Your task to perform on an android device: Open Maps and search for coffee Image 0: 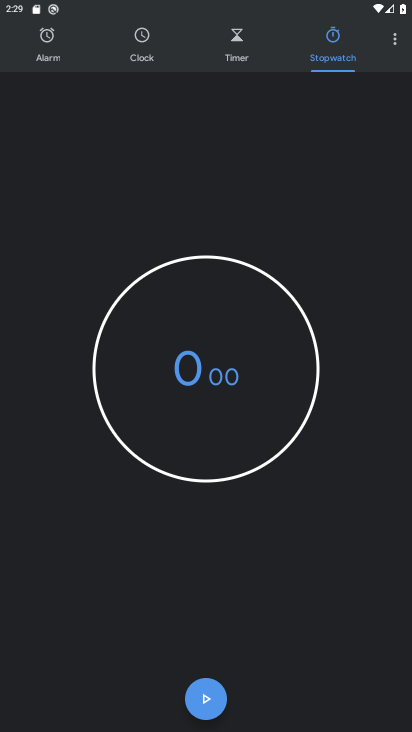
Step 0: press home button
Your task to perform on an android device: Open Maps and search for coffee Image 1: 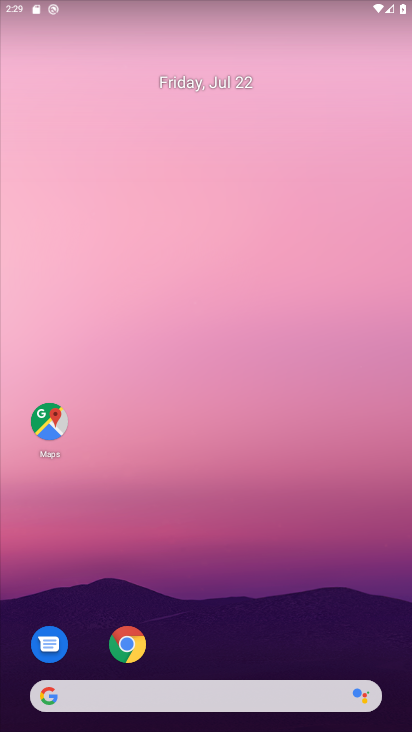
Step 1: drag from (277, 636) to (274, 193)
Your task to perform on an android device: Open Maps and search for coffee Image 2: 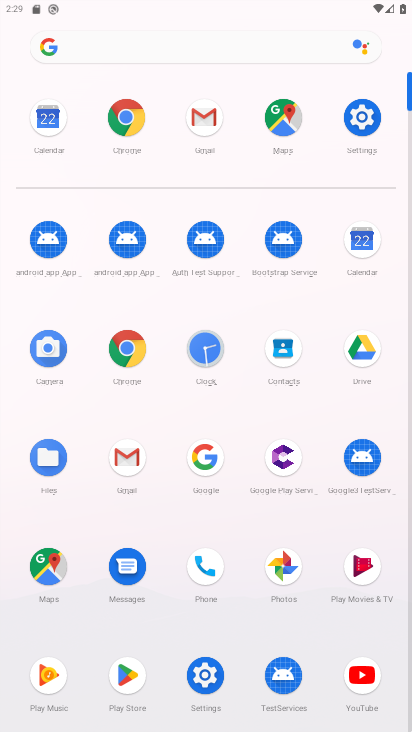
Step 2: click (282, 115)
Your task to perform on an android device: Open Maps and search for coffee Image 3: 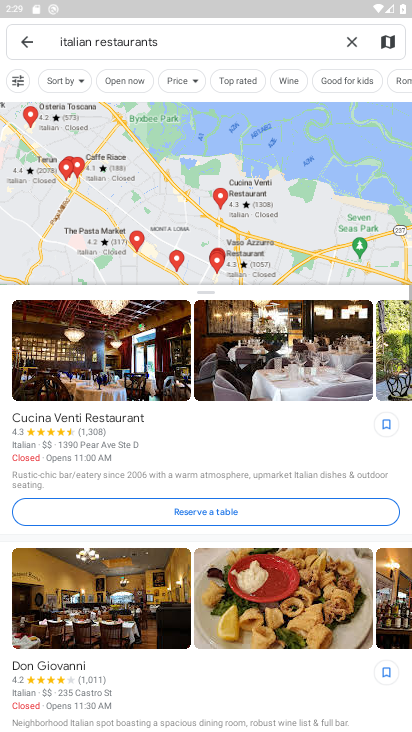
Step 3: click (354, 34)
Your task to perform on an android device: Open Maps and search for coffee Image 4: 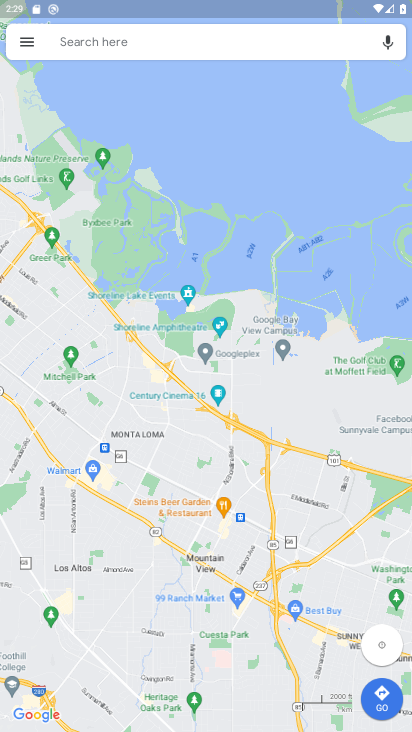
Step 4: click (187, 32)
Your task to perform on an android device: Open Maps and search for coffee Image 5: 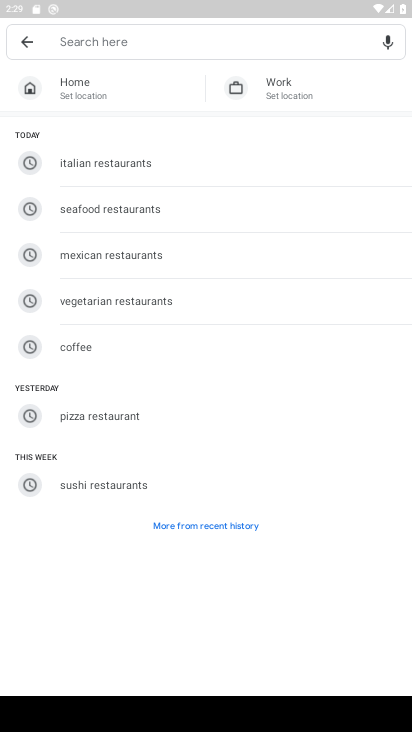
Step 5: click (99, 355)
Your task to perform on an android device: Open Maps and search for coffee Image 6: 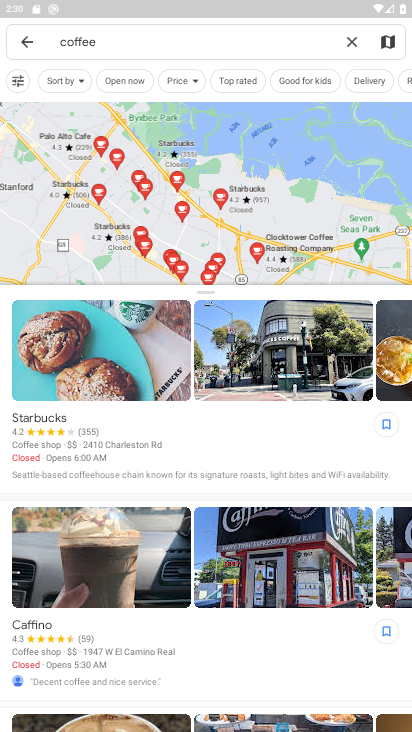
Step 6: task complete